Your task to perform on an android device: choose inbox layout in the gmail app Image 0: 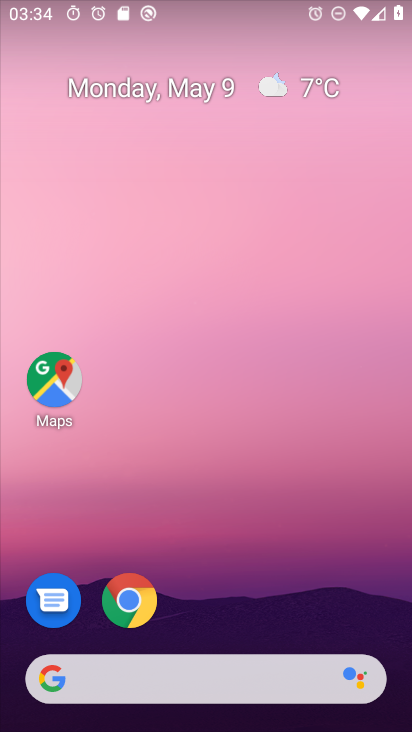
Step 0: drag from (187, 672) to (222, 202)
Your task to perform on an android device: choose inbox layout in the gmail app Image 1: 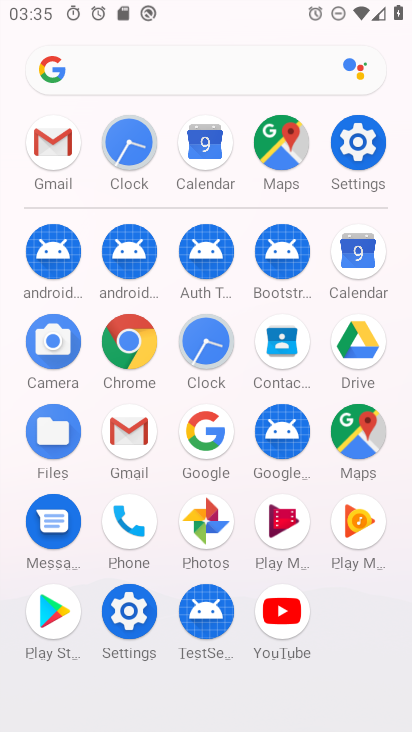
Step 1: click (139, 450)
Your task to perform on an android device: choose inbox layout in the gmail app Image 2: 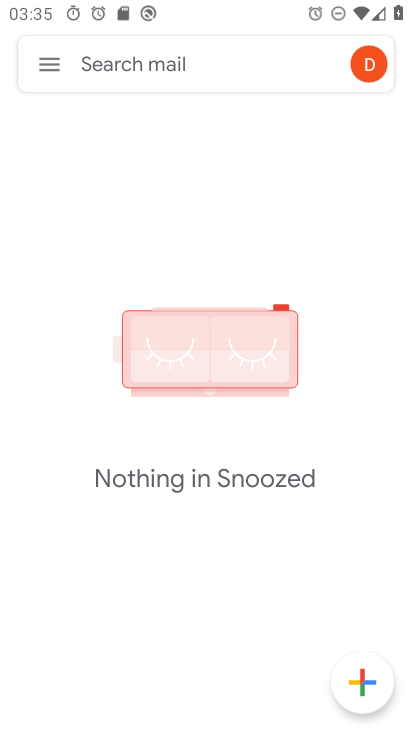
Step 2: click (38, 60)
Your task to perform on an android device: choose inbox layout in the gmail app Image 3: 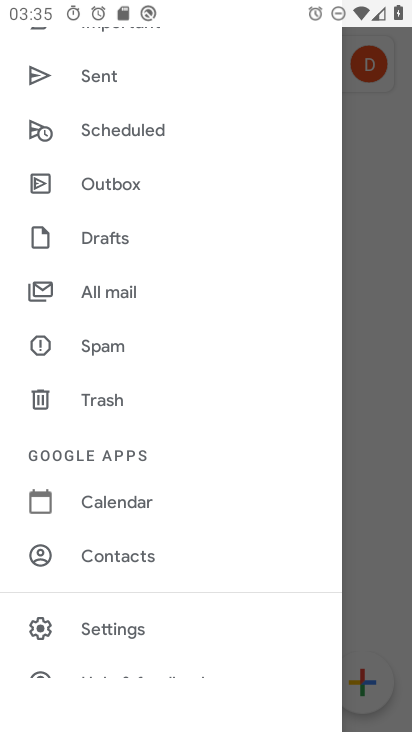
Step 3: click (134, 621)
Your task to perform on an android device: choose inbox layout in the gmail app Image 4: 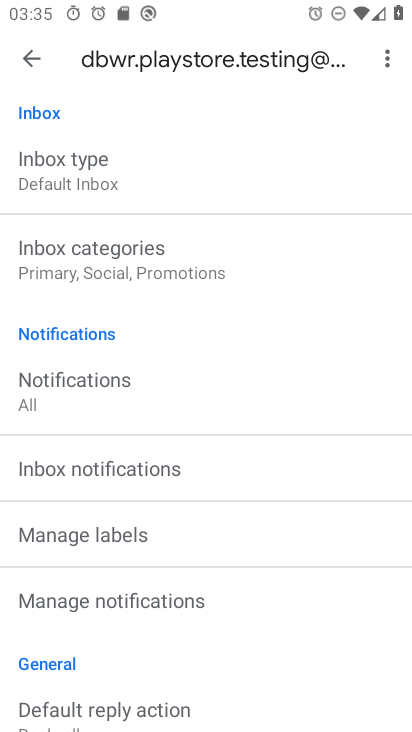
Step 4: click (84, 181)
Your task to perform on an android device: choose inbox layout in the gmail app Image 5: 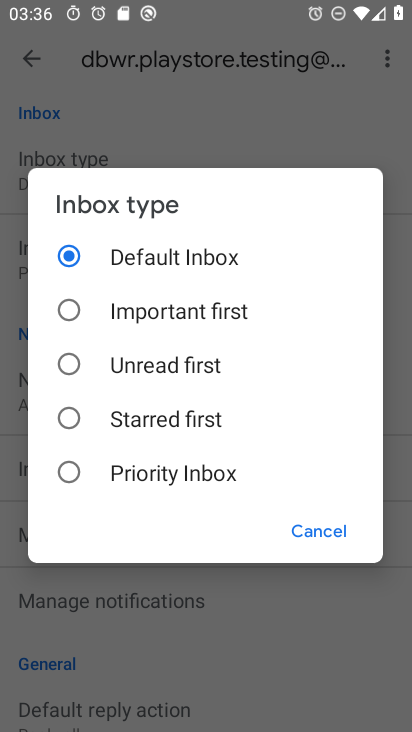
Step 5: click (147, 462)
Your task to perform on an android device: choose inbox layout in the gmail app Image 6: 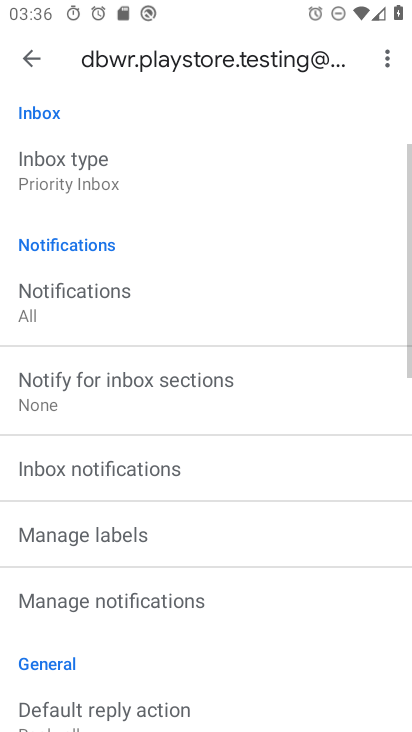
Step 6: task complete